Your task to perform on an android device: change keyboard looks Image 0: 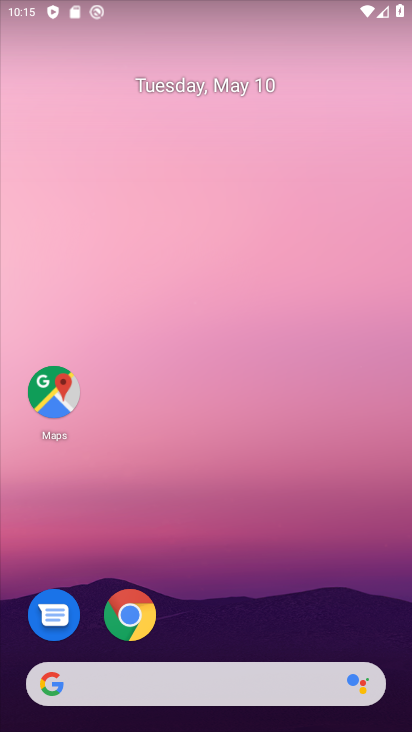
Step 0: drag from (236, 595) to (190, 135)
Your task to perform on an android device: change keyboard looks Image 1: 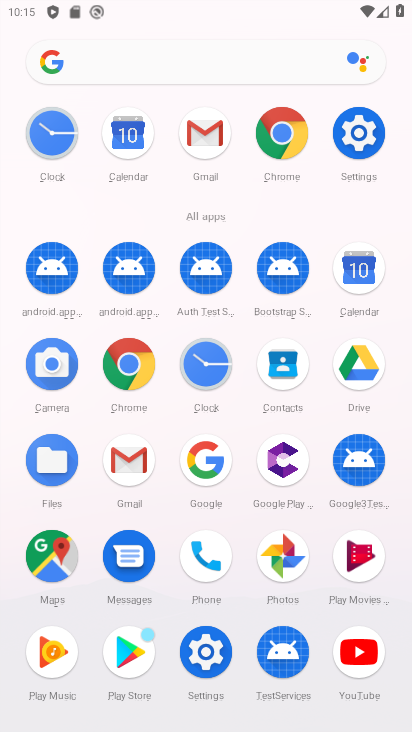
Step 1: click (358, 133)
Your task to perform on an android device: change keyboard looks Image 2: 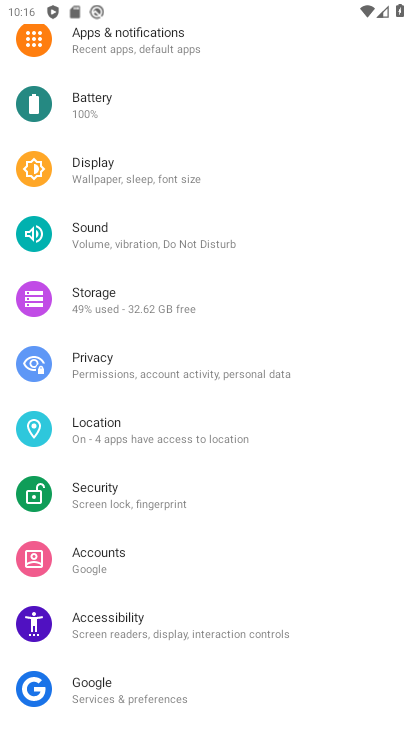
Step 2: drag from (137, 539) to (176, 415)
Your task to perform on an android device: change keyboard looks Image 3: 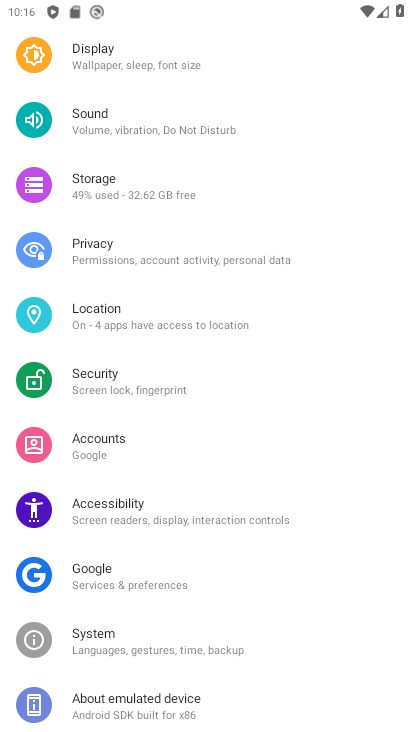
Step 3: click (113, 644)
Your task to perform on an android device: change keyboard looks Image 4: 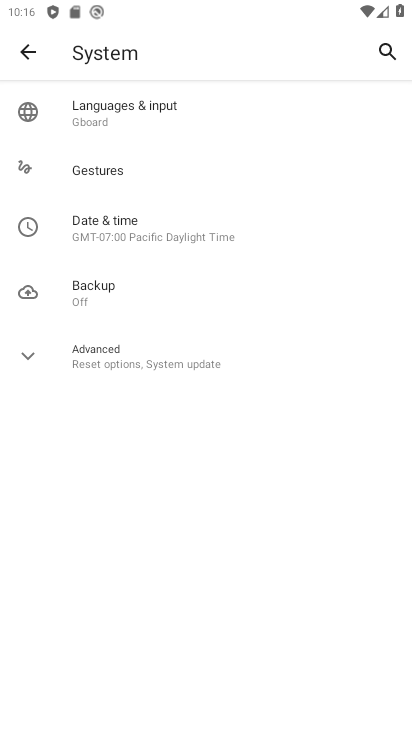
Step 4: click (111, 114)
Your task to perform on an android device: change keyboard looks Image 5: 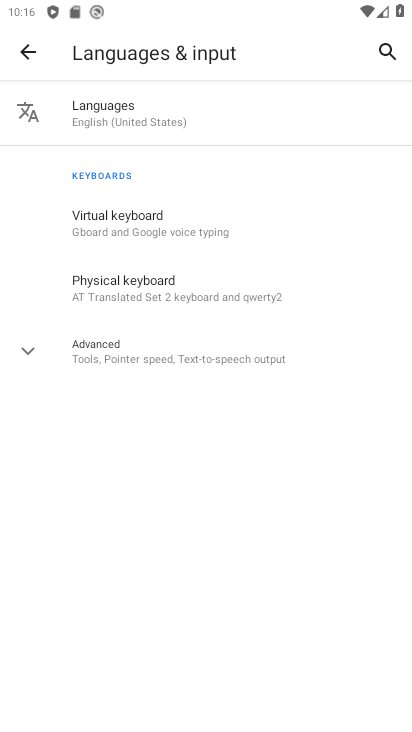
Step 5: click (147, 219)
Your task to perform on an android device: change keyboard looks Image 6: 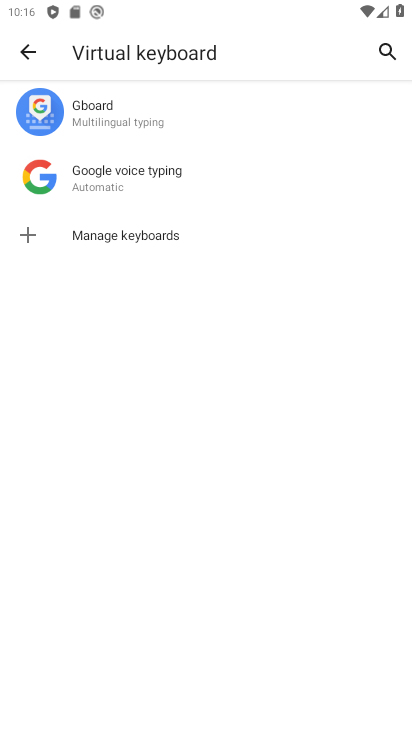
Step 6: click (100, 118)
Your task to perform on an android device: change keyboard looks Image 7: 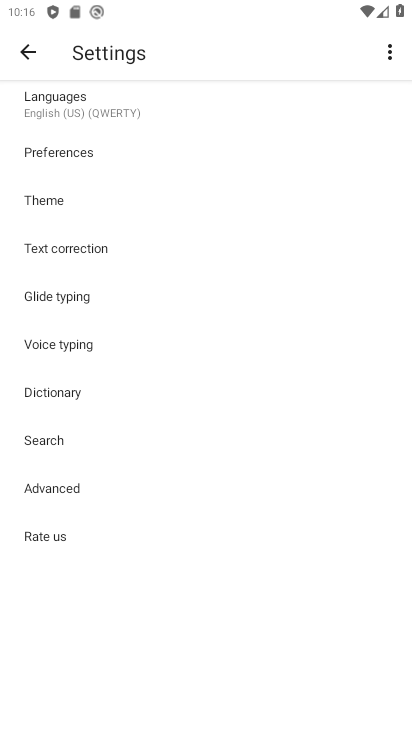
Step 7: click (53, 198)
Your task to perform on an android device: change keyboard looks Image 8: 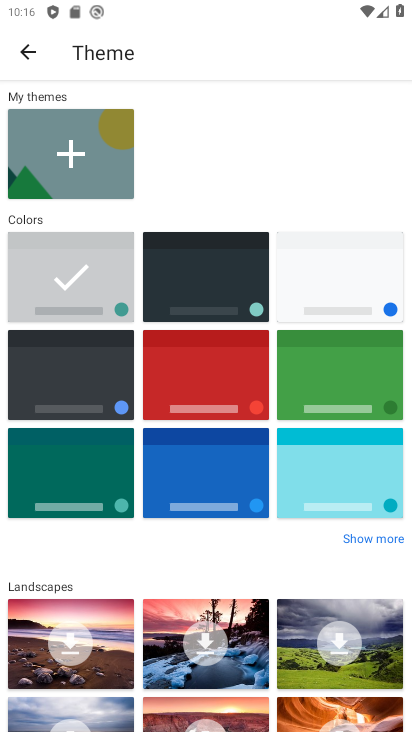
Step 8: click (362, 371)
Your task to perform on an android device: change keyboard looks Image 9: 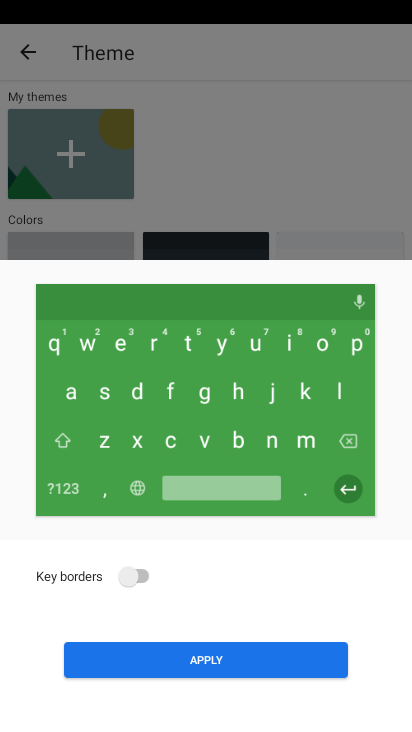
Step 9: click (130, 572)
Your task to perform on an android device: change keyboard looks Image 10: 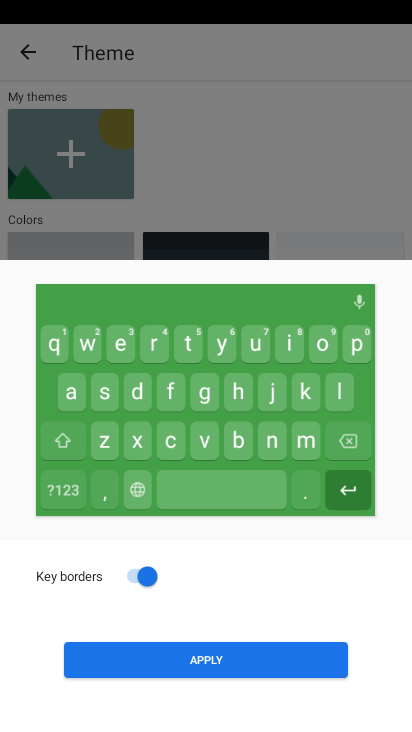
Step 10: click (201, 664)
Your task to perform on an android device: change keyboard looks Image 11: 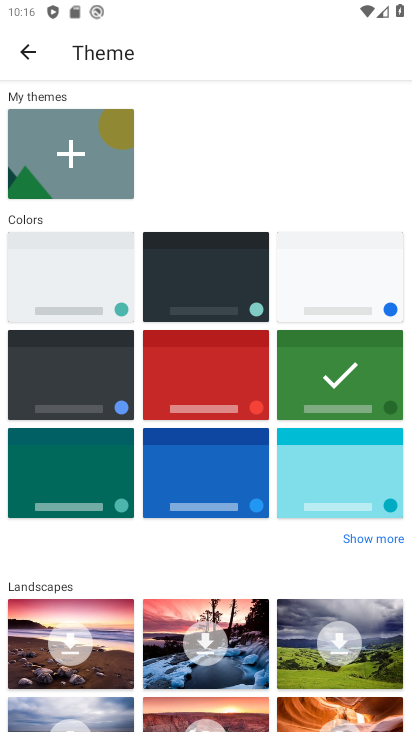
Step 11: task complete